Your task to perform on an android device: Show me popular games on the Play Store Image 0: 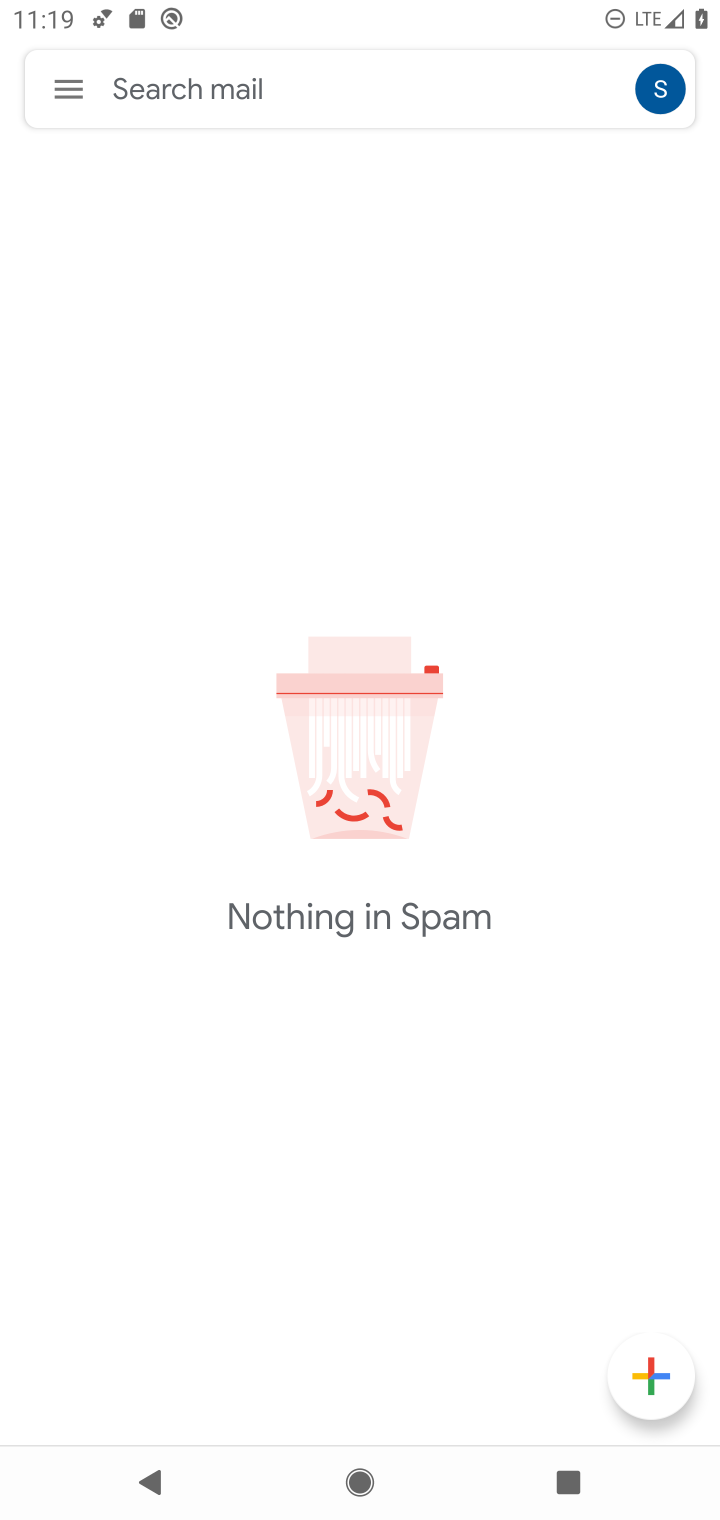
Step 0: press home button
Your task to perform on an android device: Show me popular games on the Play Store Image 1: 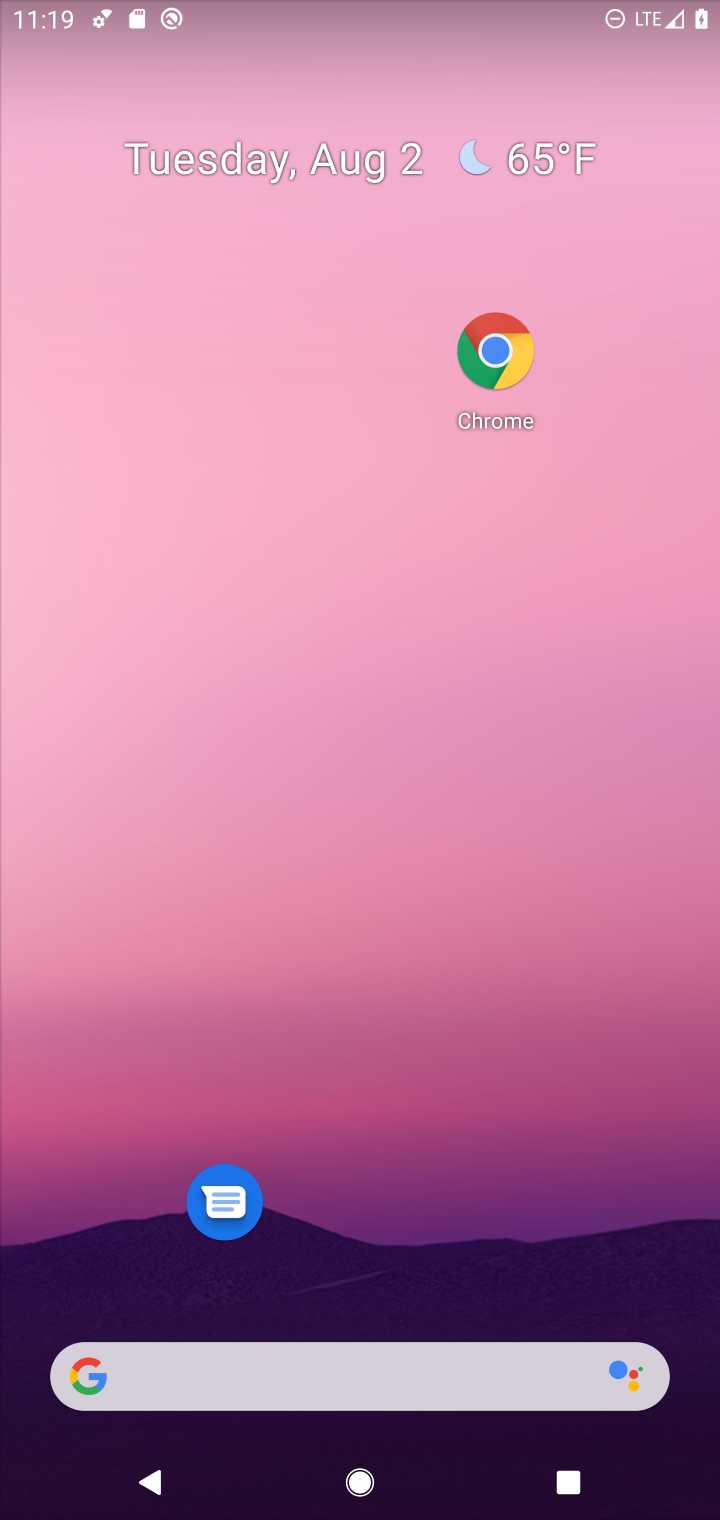
Step 1: drag from (356, 1150) to (402, 146)
Your task to perform on an android device: Show me popular games on the Play Store Image 2: 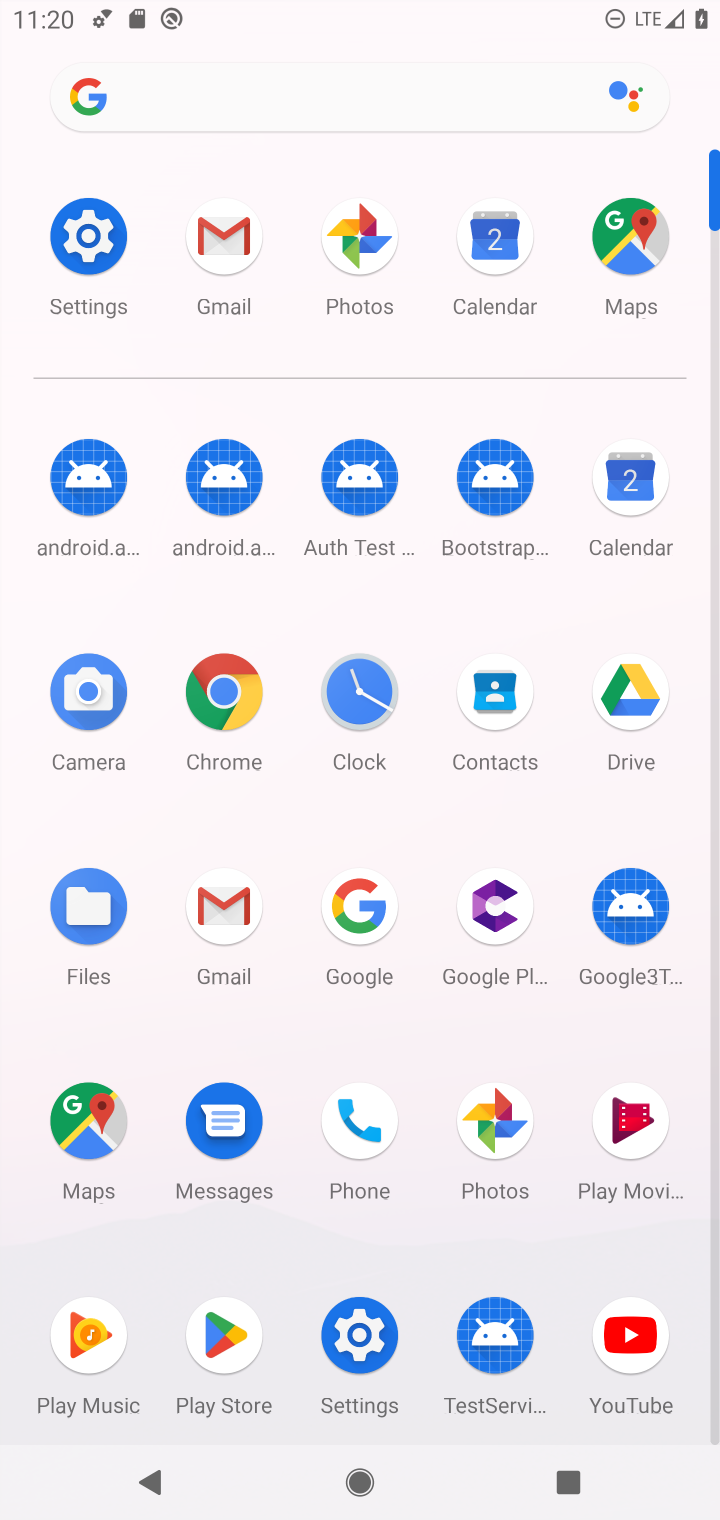
Step 2: click (222, 1345)
Your task to perform on an android device: Show me popular games on the Play Store Image 3: 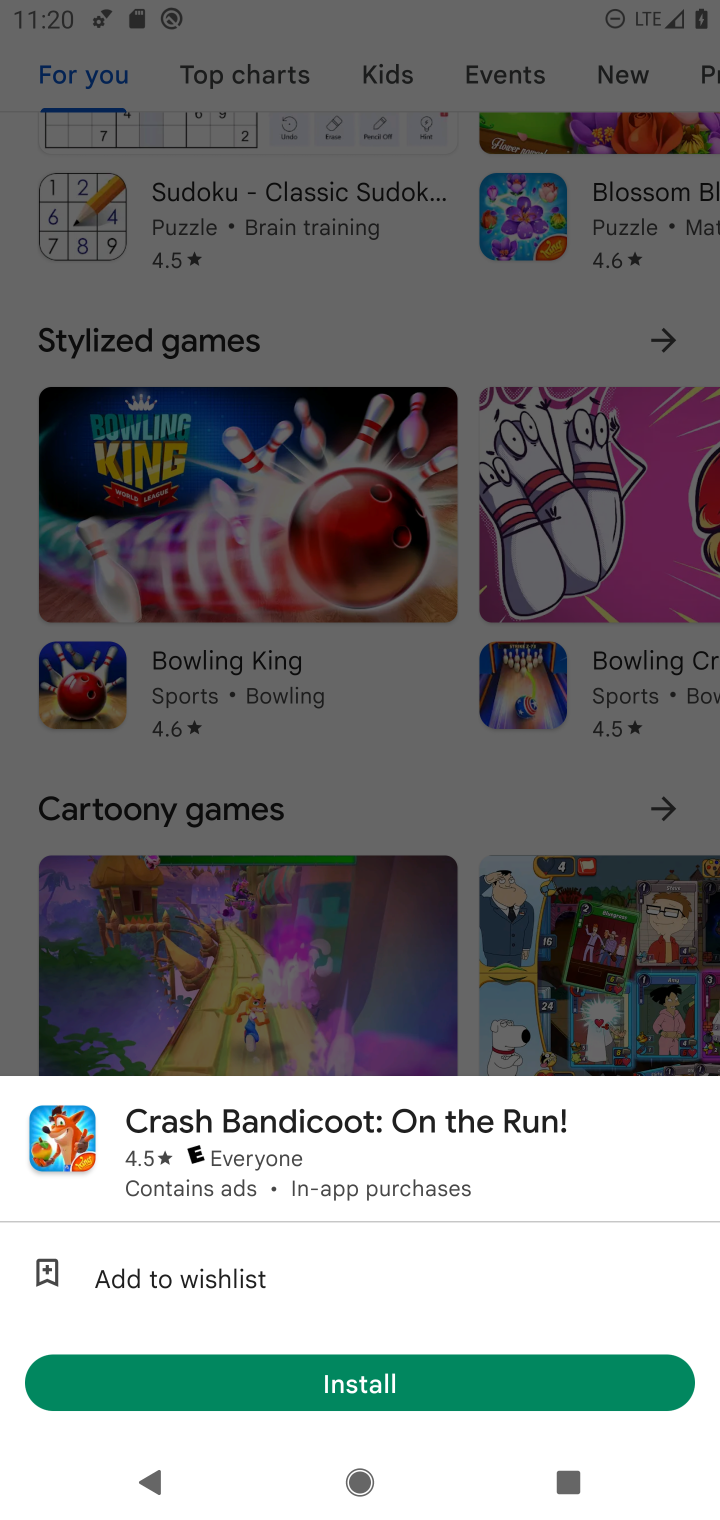
Step 3: drag from (500, 823) to (500, 715)
Your task to perform on an android device: Show me popular games on the Play Store Image 4: 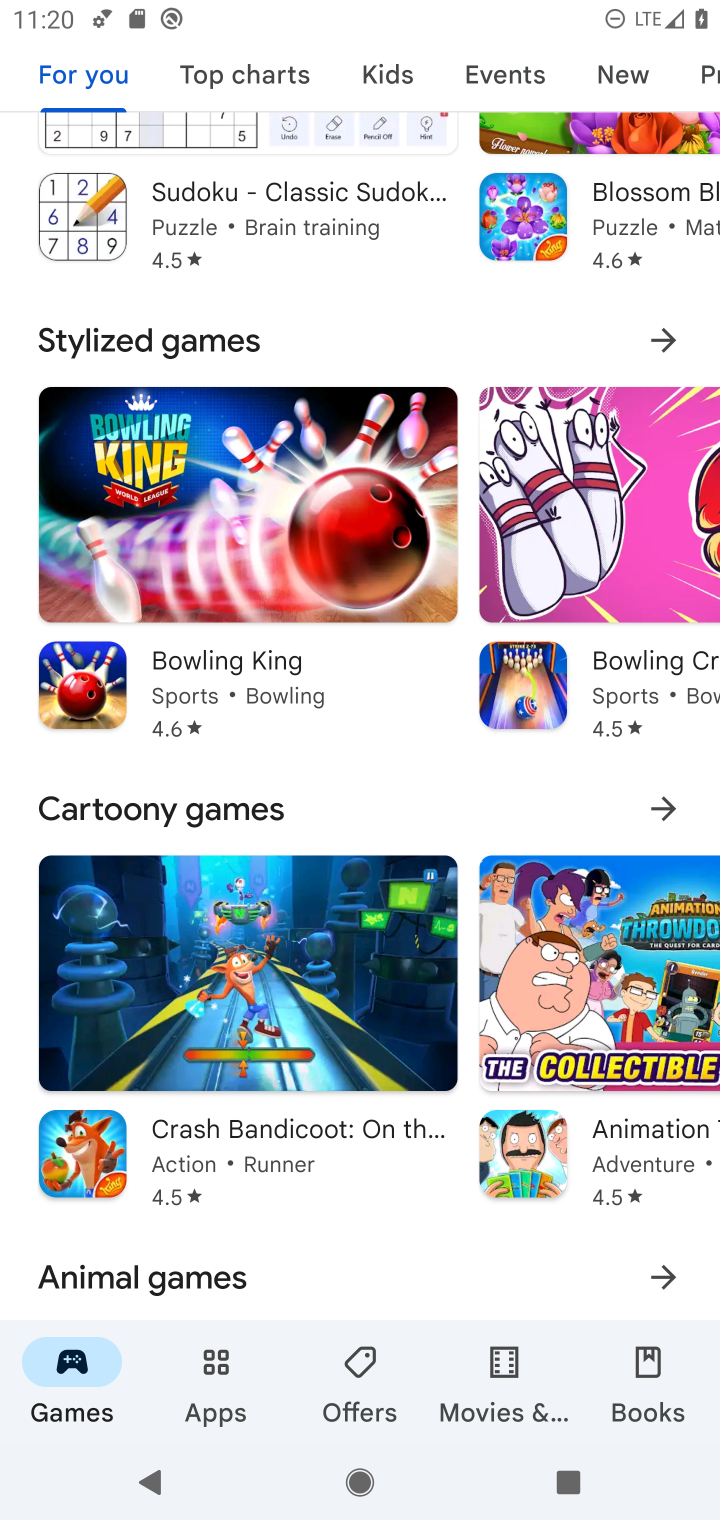
Step 4: click (87, 1384)
Your task to perform on an android device: Show me popular games on the Play Store Image 5: 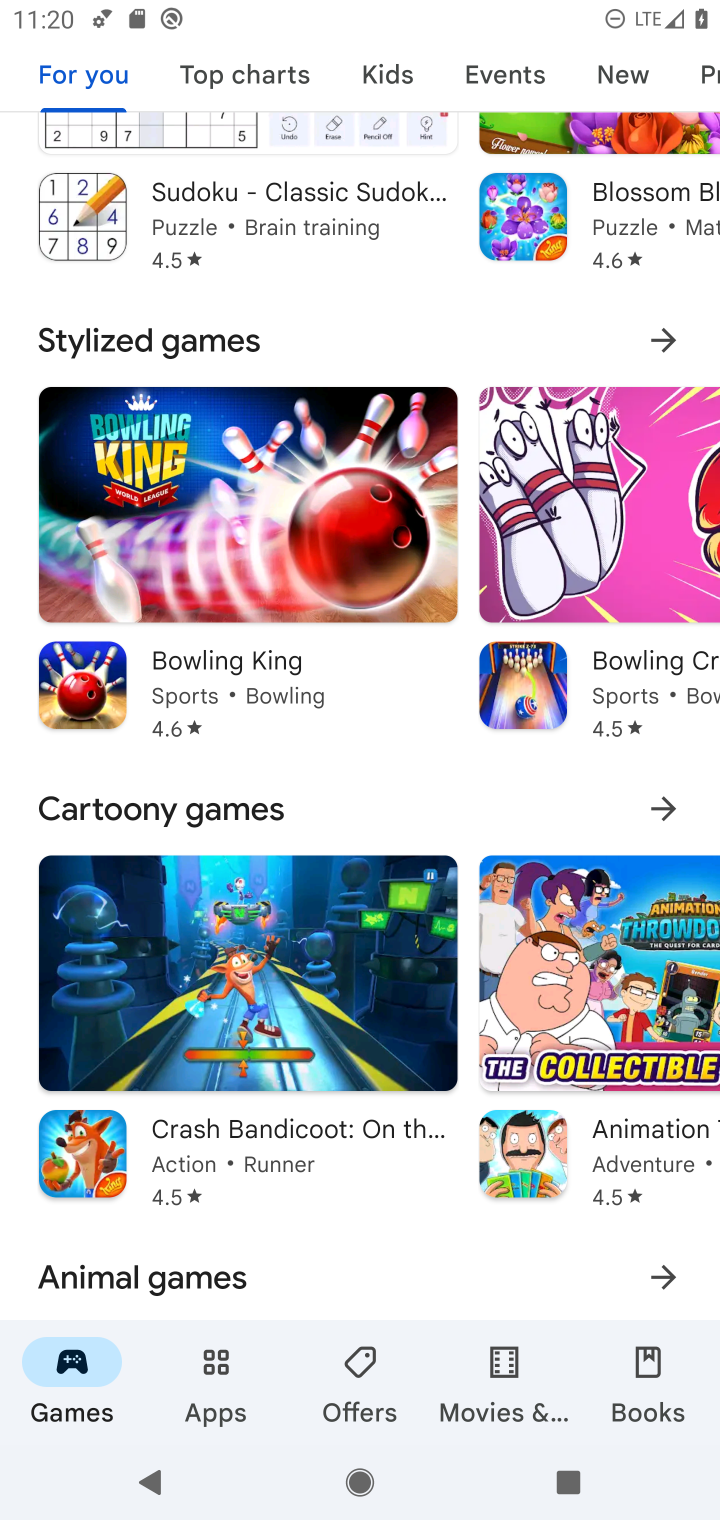
Step 5: drag from (370, 721) to (335, 1293)
Your task to perform on an android device: Show me popular games on the Play Store Image 6: 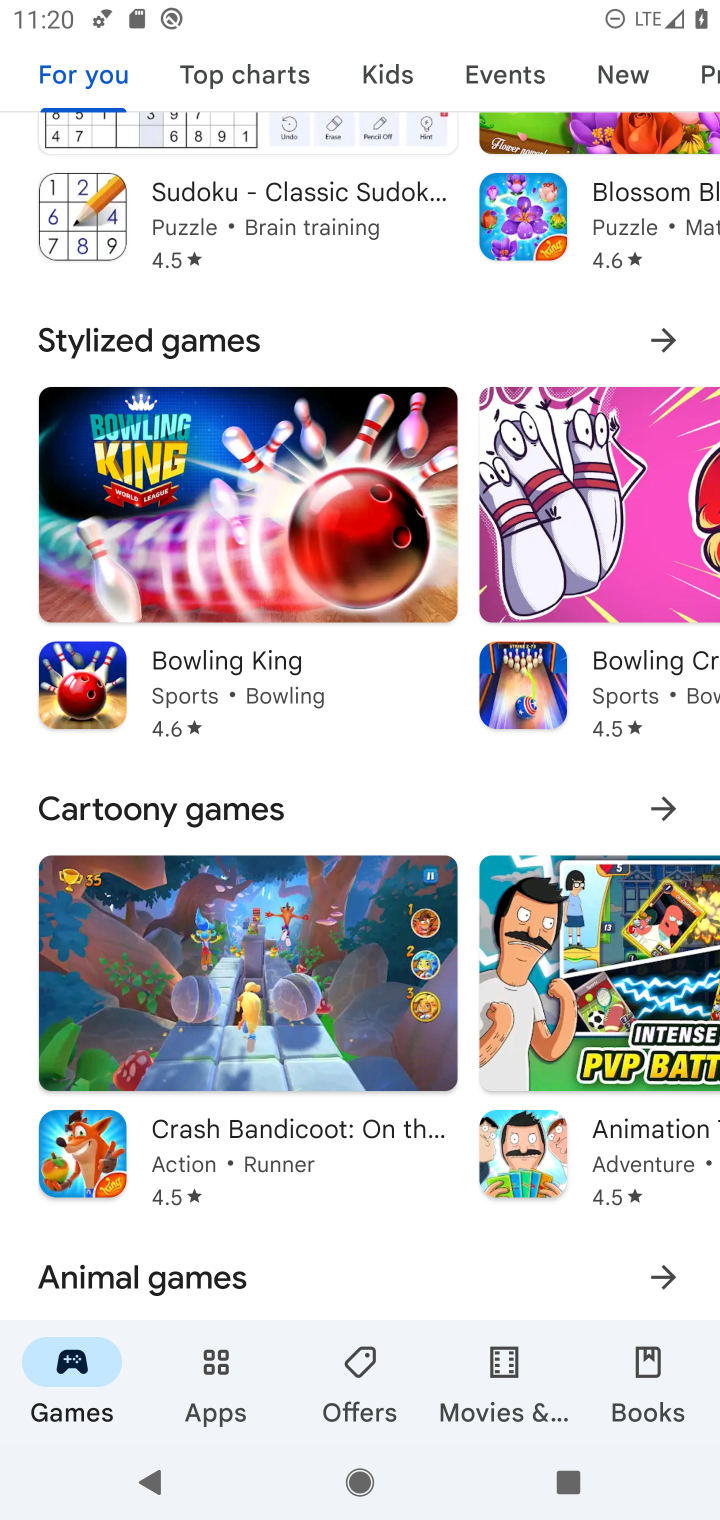
Step 6: drag from (460, 718) to (449, 1254)
Your task to perform on an android device: Show me popular games on the Play Store Image 7: 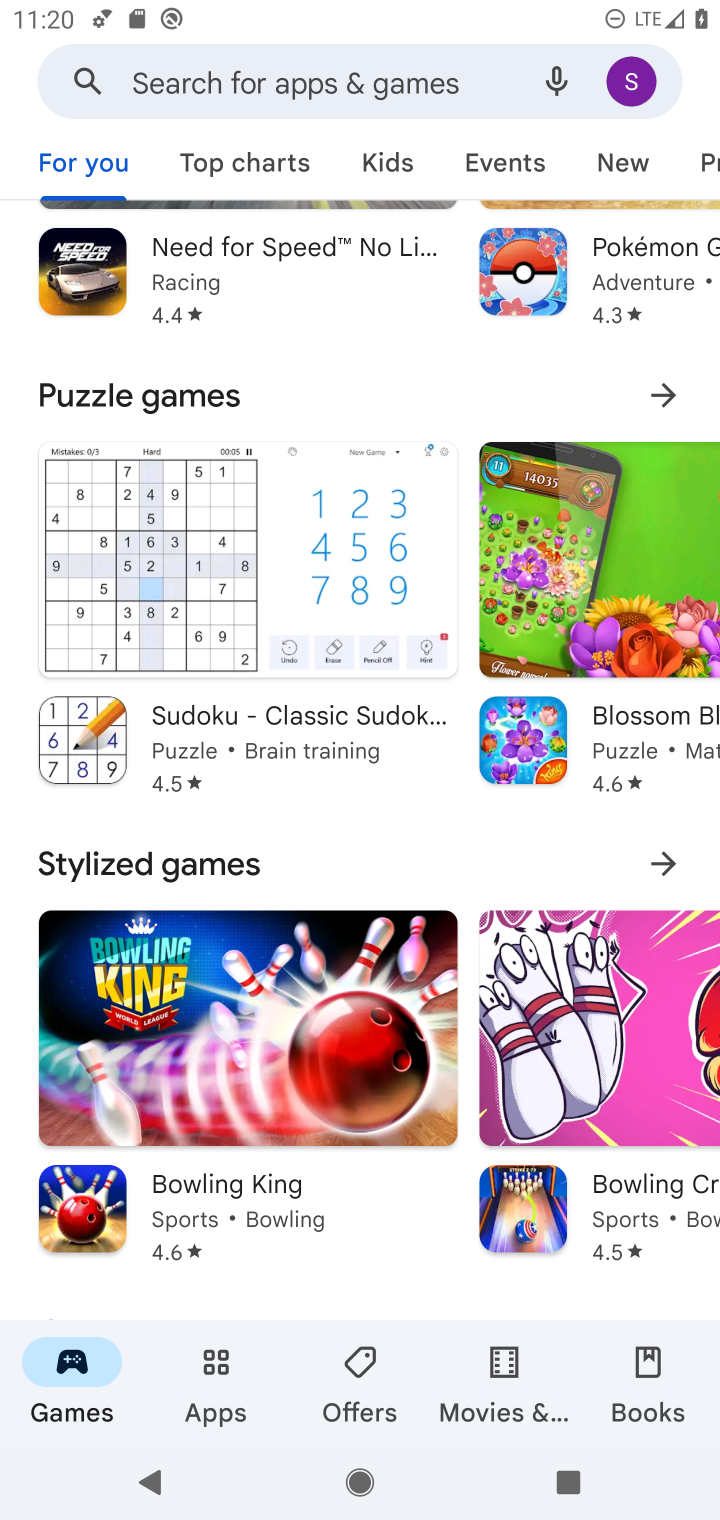
Step 7: drag from (403, 473) to (383, 1289)
Your task to perform on an android device: Show me popular games on the Play Store Image 8: 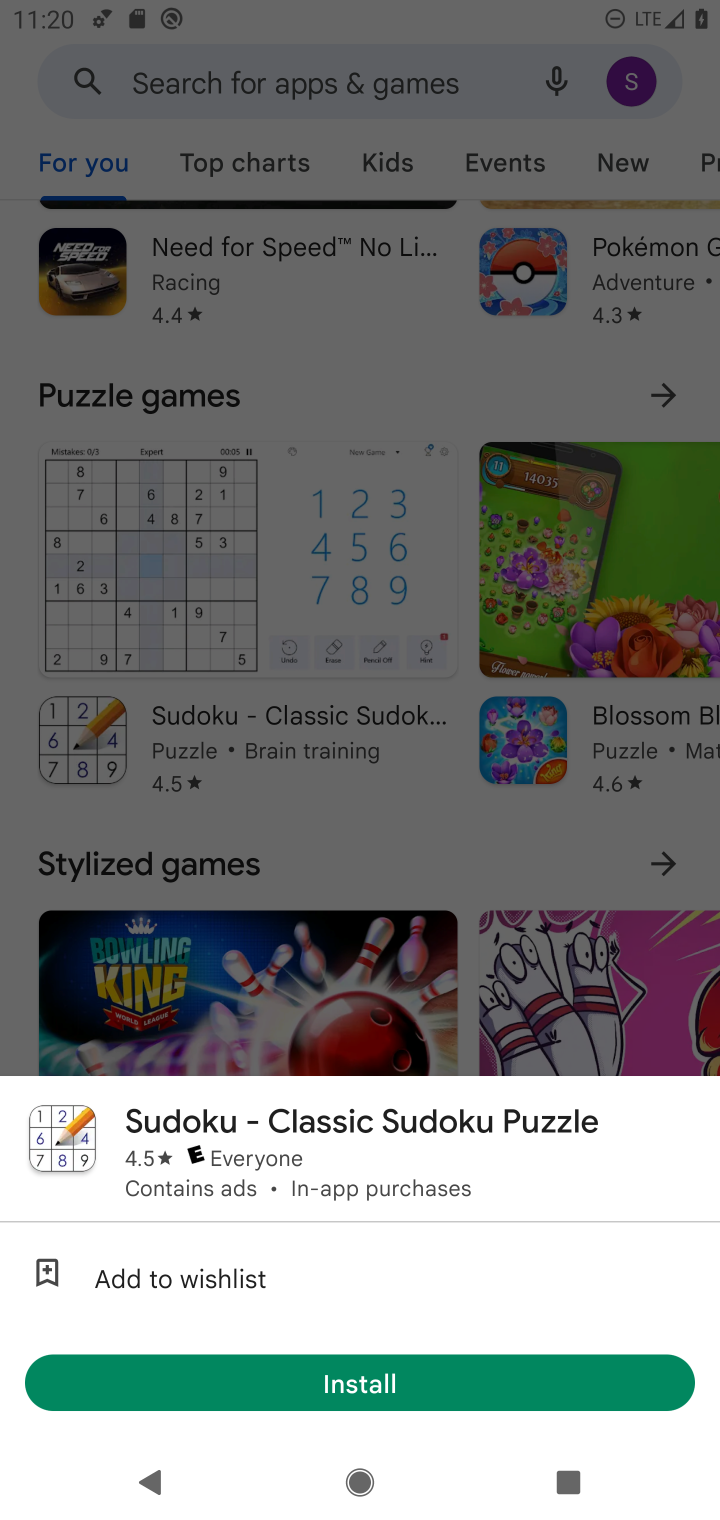
Step 8: drag from (322, 560) to (331, 879)
Your task to perform on an android device: Show me popular games on the Play Store Image 9: 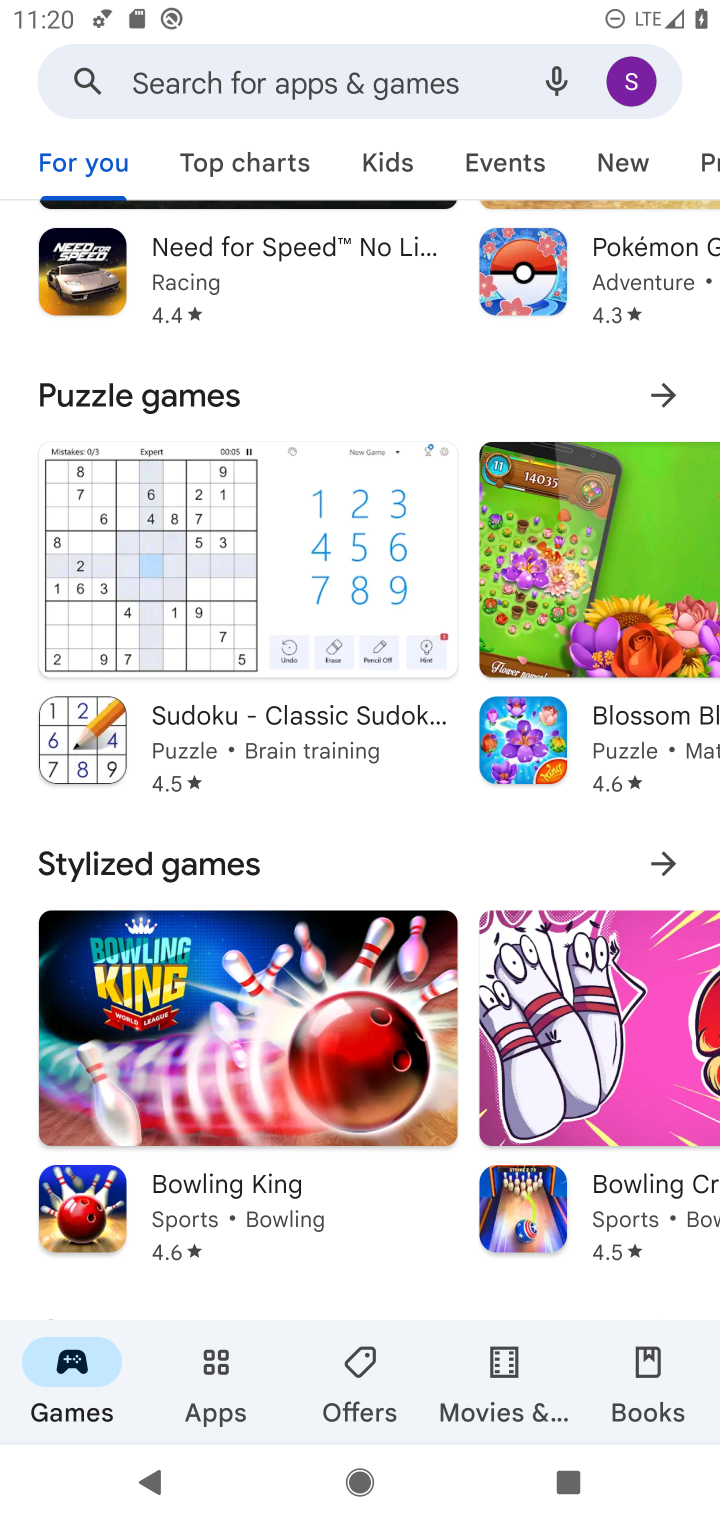
Step 9: drag from (333, 339) to (370, 1046)
Your task to perform on an android device: Show me popular games on the Play Store Image 10: 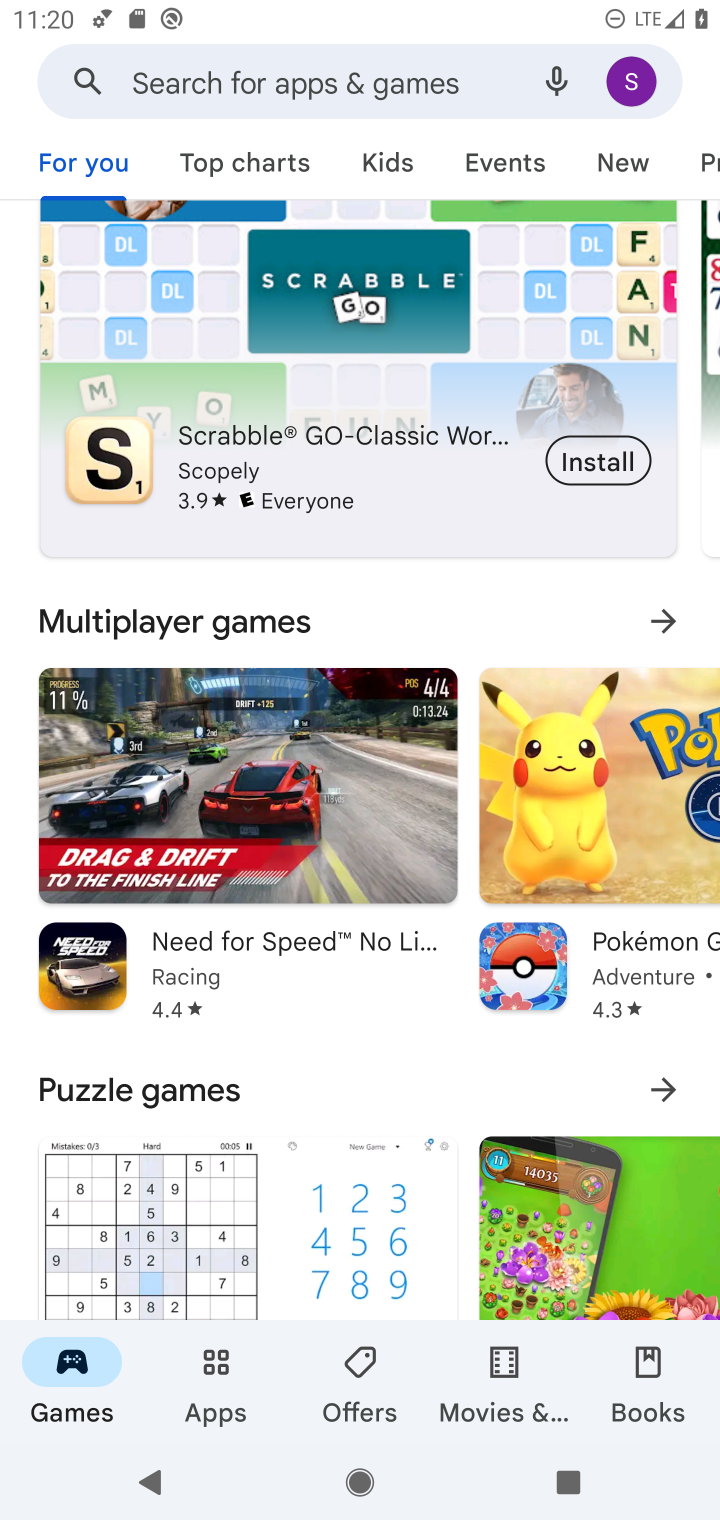
Step 10: drag from (633, 321) to (467, 1133)
Your task to perform on an android device: Show me popular games on the Play Store Image 11: 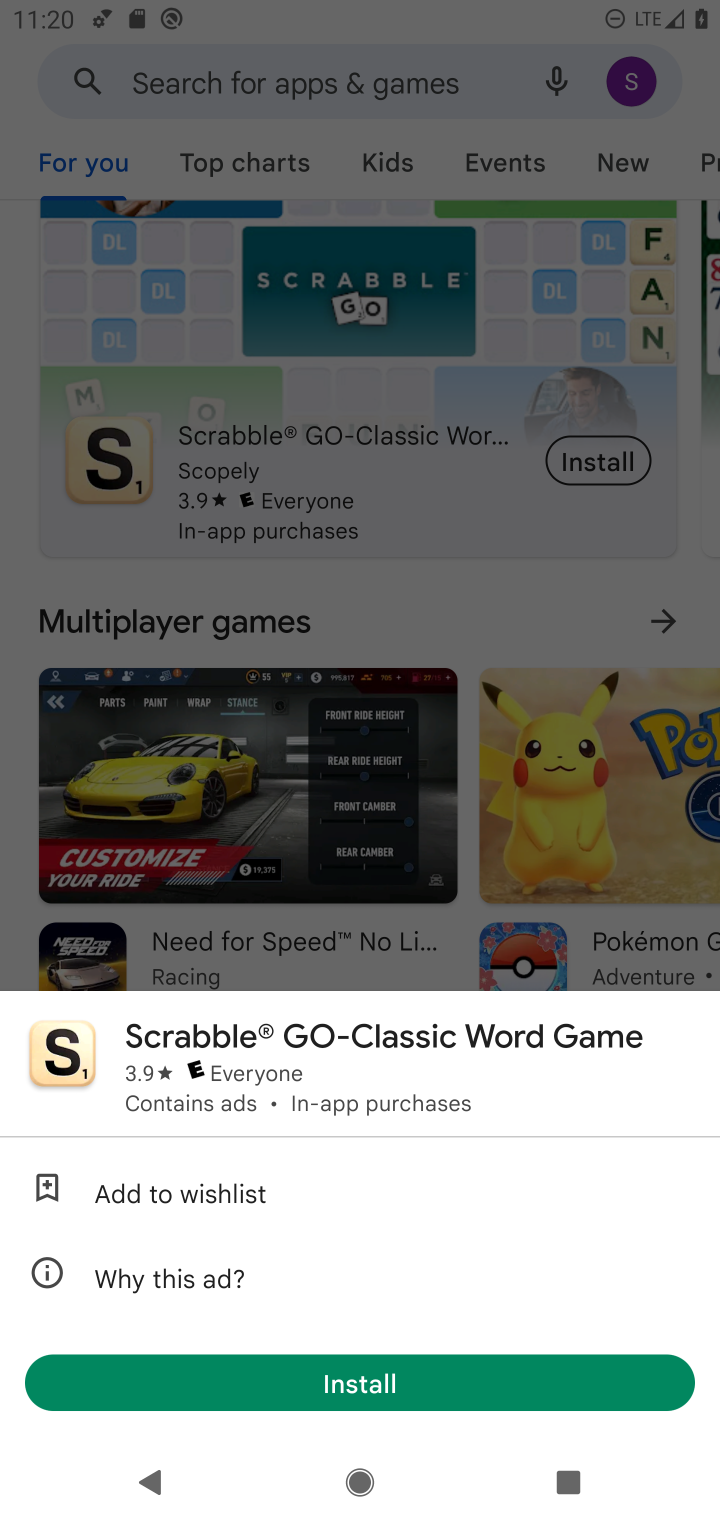
Step 11: drag from (108, 416) to (126, 850)
Your task to perform on an android device: Show me popular games on the Play Store Image 12: 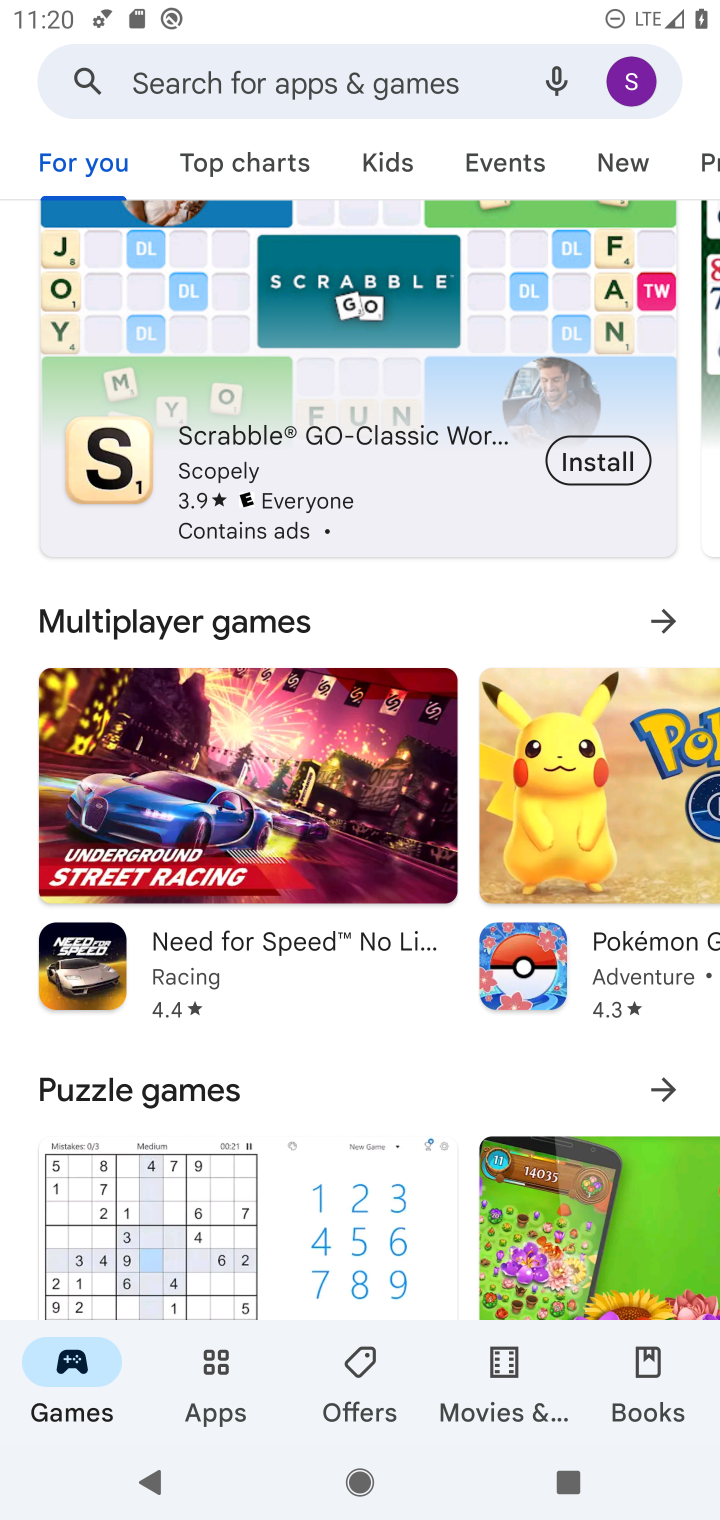
Step 12: drag from (55, 238) to (93, 951)
Your task to perform on an android device: Show me popular games on the Play Store Image 13: 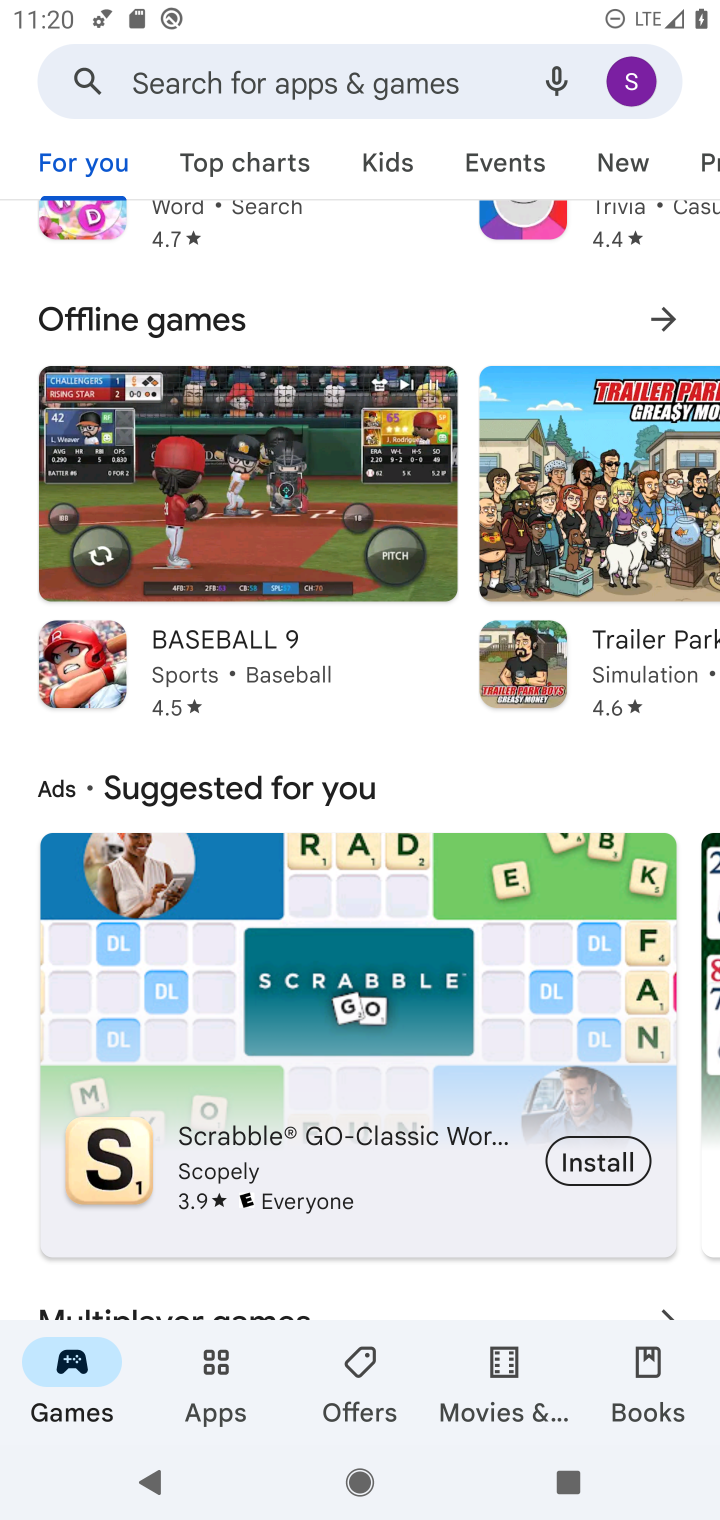
Step 13: click (74, 1380)
Your task to perform on an android device: Show me popular games on the Play Store Image 14: 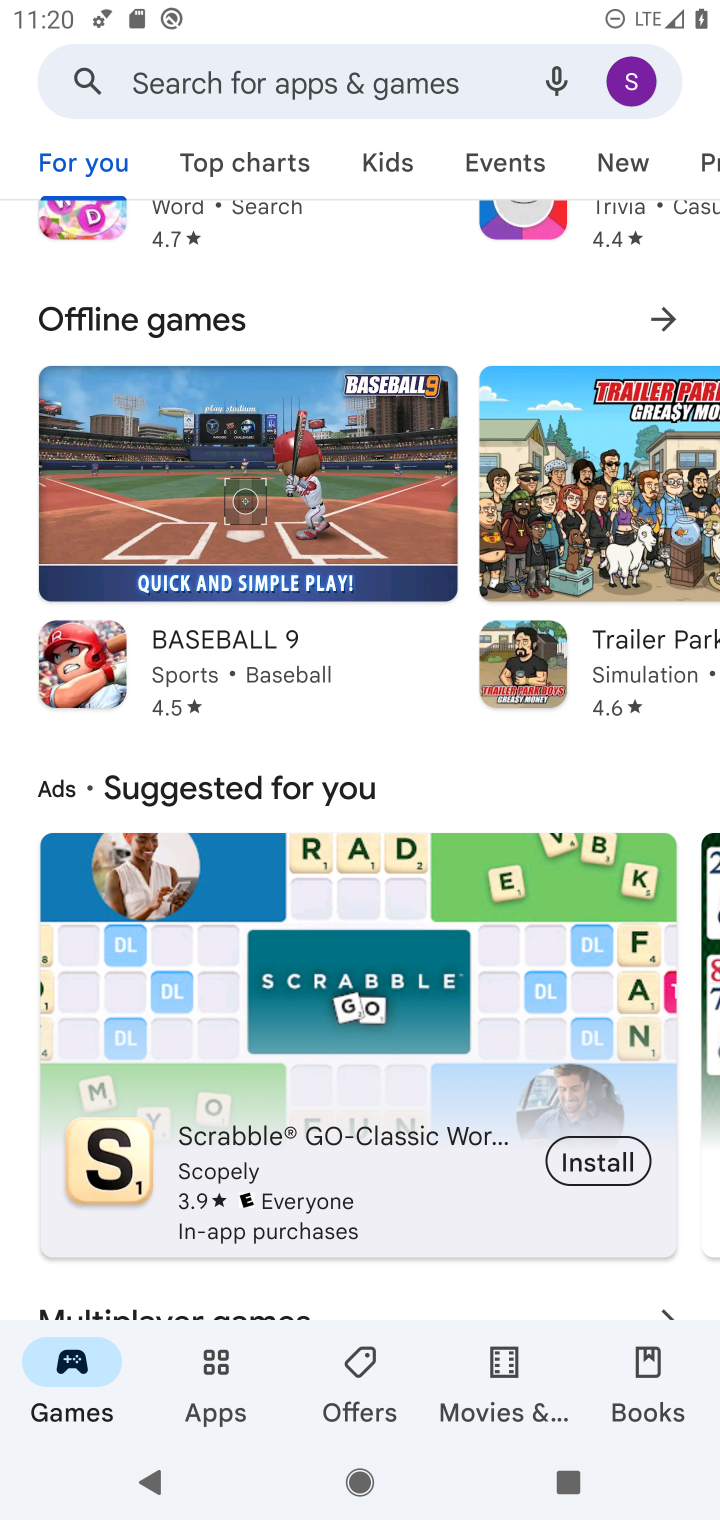
Step 14: task complete